Your task to perform on an android device: Search for Italian restaurants on Maps Image 0: 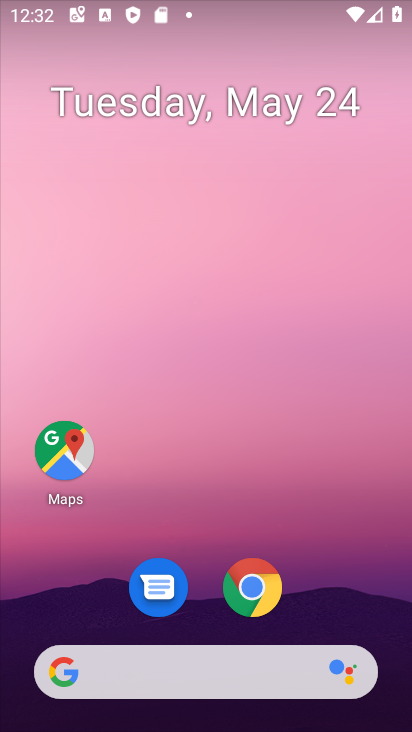
Step 0: click (76, 441)
Your task to perform on an android device: Search for Italian restaurants on Maps Image 1: 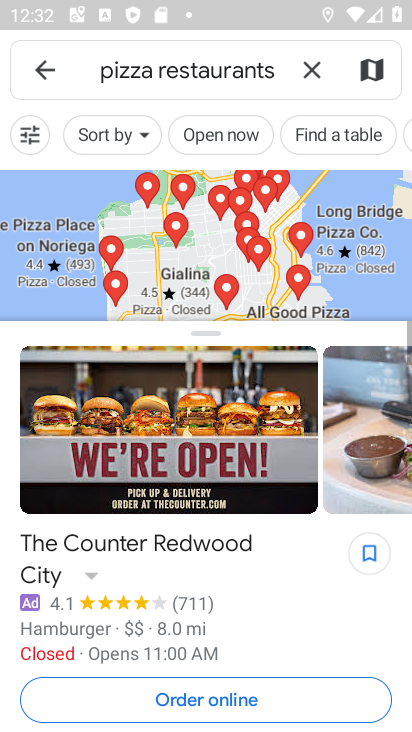
Step 1: click (316, 72)
Your task to perform on an android device: Search for Italian restaurants on Maps Image 2: 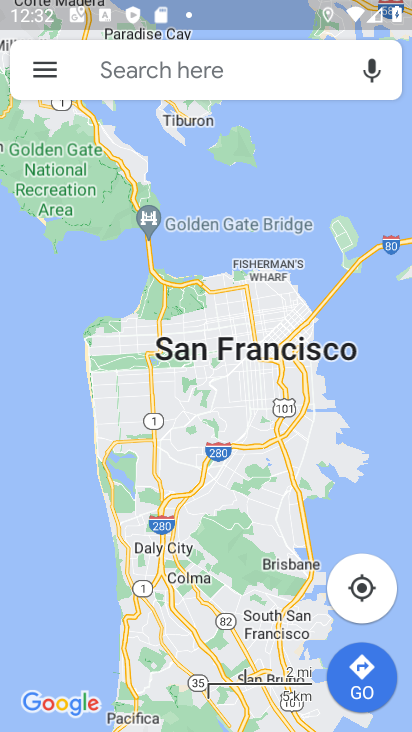
Step 2: click (279, 77)
Your task to perform on an android device: Search for Italian restaurants on Maps Image 3: 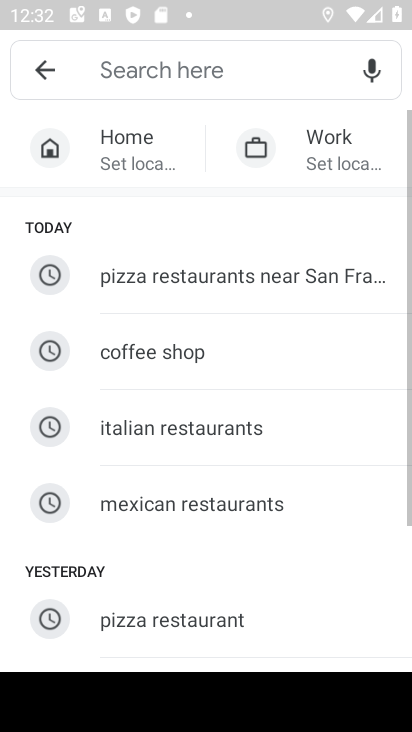
Step 3: click (175, 440)
Your task to perform on an android device: Search for Italian restaurants on Maps Image 4: 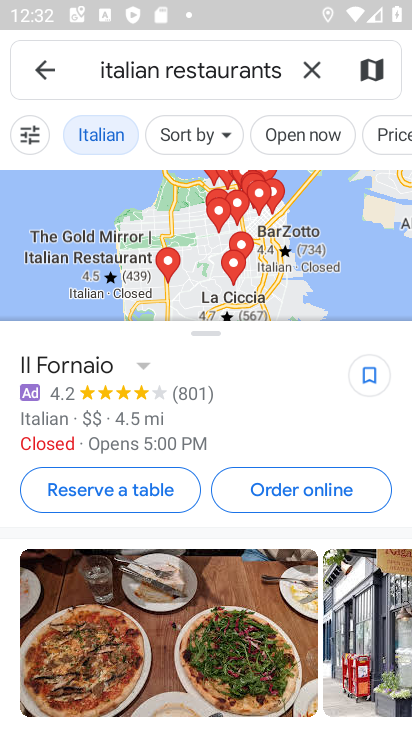
Step 4: task complete